Your task to perform on an android device: Go to sound settings Image 0: 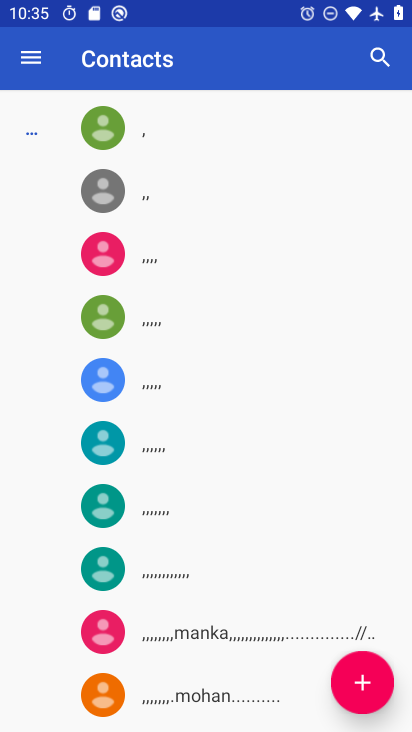
Step 0: press home button
Your task to perform on an android device: Go to sound settings Image 1: 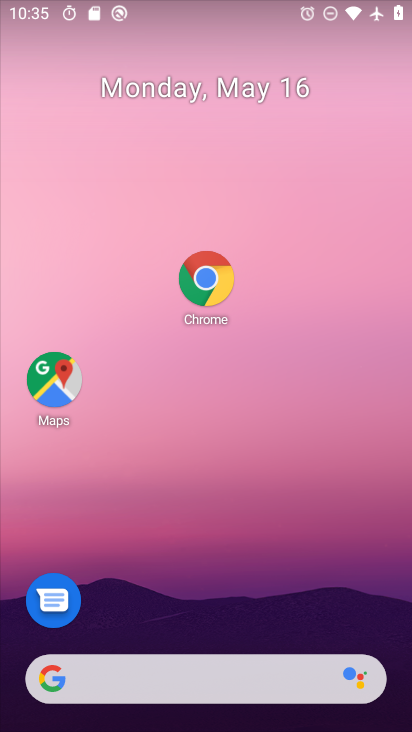
Step 1: drag from (196, 623) to (279, 162)
Your task to perform on an android device: Go to sound settings Image 2: 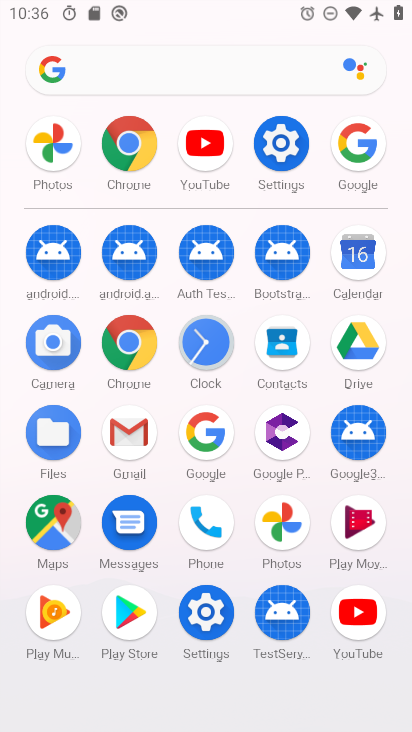
Step 2: click (275, 151)
Your task to perform on an android device: Go to sound settings Image 3: 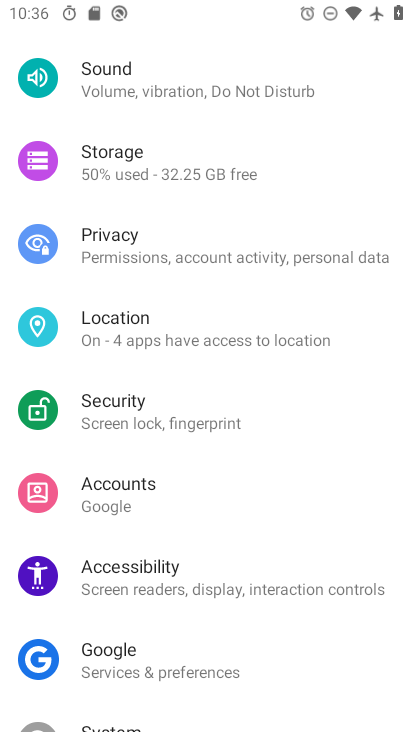
Step 3: click (152, 90)
Your task to perform on an android device: Go to sound settings Image 4: 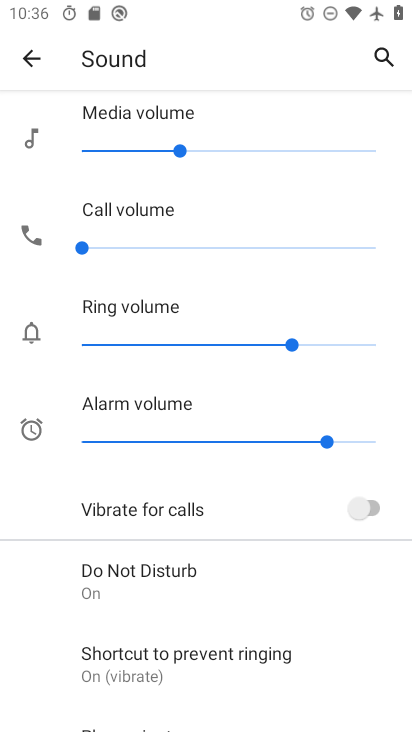
Step 4: task complete